Your task to perform on an android device: Open the web browser Image 0: 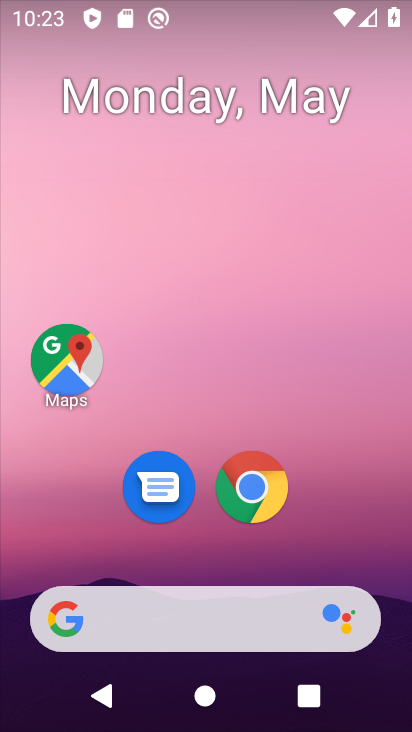
Step 0: drag from (378, 556) to (373, 254)
Your task to perform on an android device: Open the web browser Image 1: 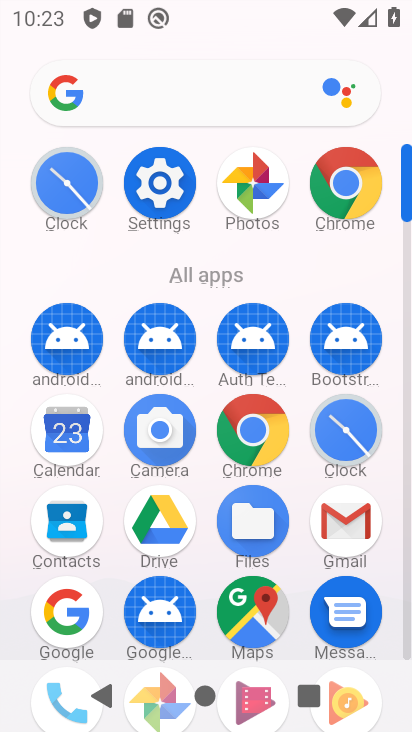
Step 1: drag from (392, 585) to (404, 450)
Your task to perform on an android device: Open the web browser Image 2: 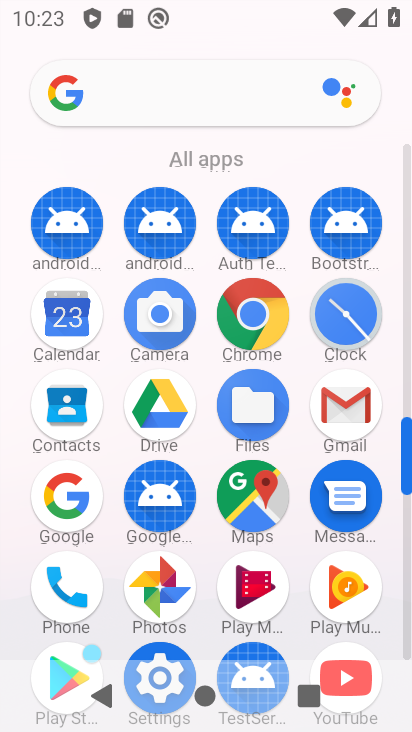
Step 2: drag from (390, 631) to (393, 483)
Your task to perform on an android device: Open the web browser Image 3: 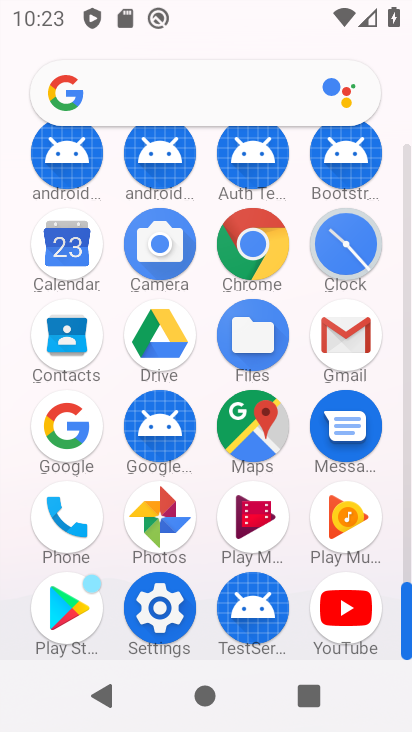
Step 3: click (262, 268)
Your task to perform on an android device: Open the web browser Image 4: 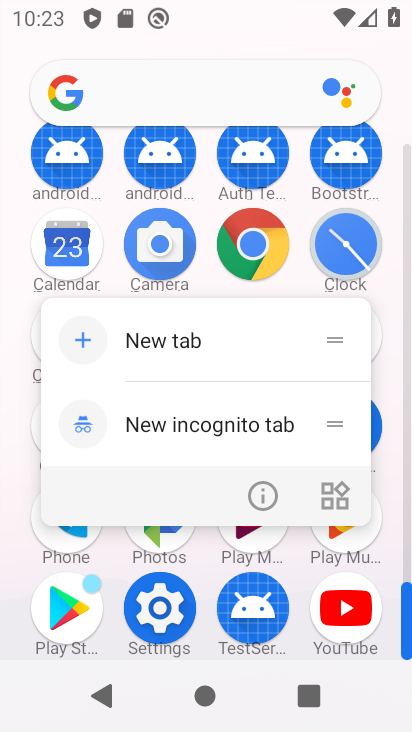
Step 4: click (263, 267)
Your task to perform on an android device: Open the web browser Image 5: 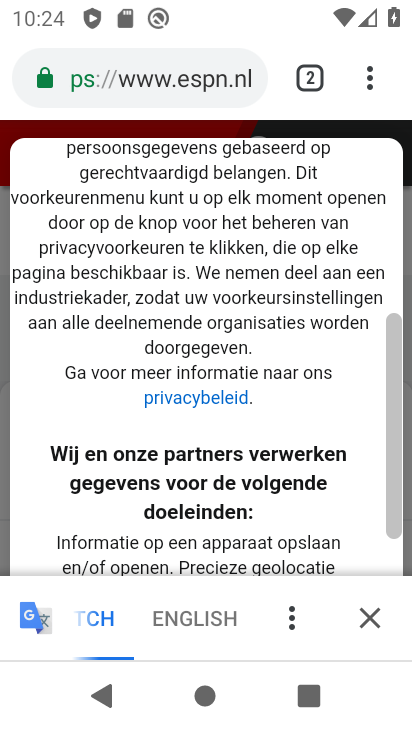
Step 5: task complete